Your task to perform on an android device: Add "bose soundlink mini" to the cart on walmart, then select checkout. Image 0: 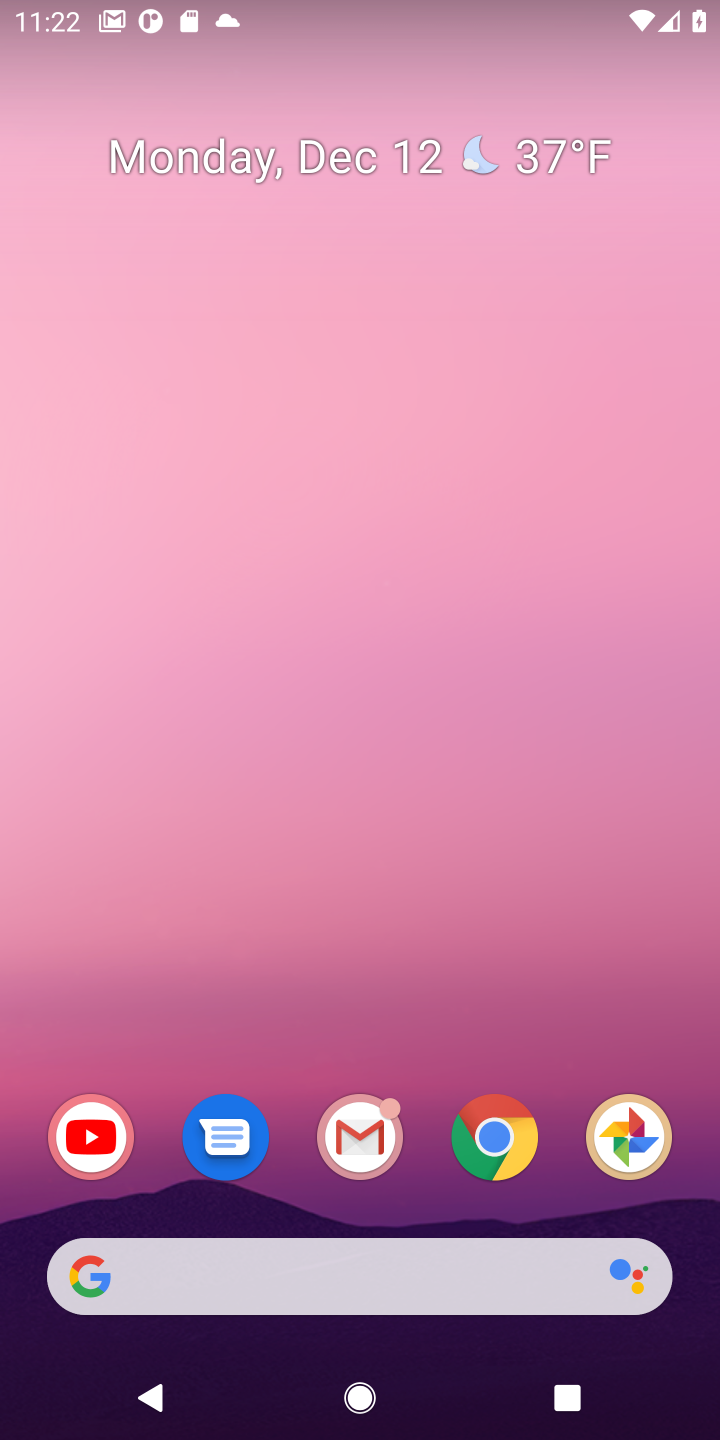
Step 0: click (446, 1281)
Your task to perform on an android device: Add "bose soundlink mini" to the cart on walmart, then select checkout. Image 1: 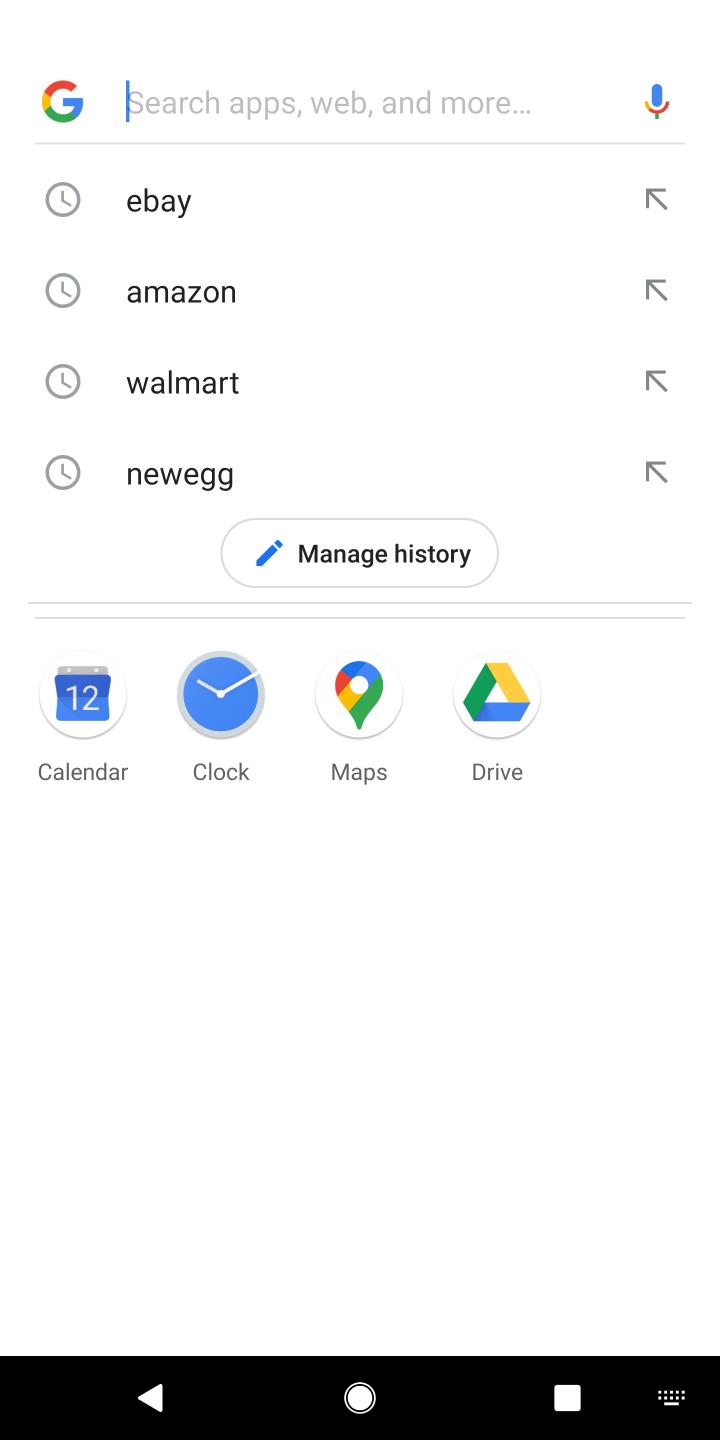
Step 1: click (231, 409)
Your task to perform on an android device: Add "bose soundlink mini" to the cart on walmart, then select checkout. Image 2: 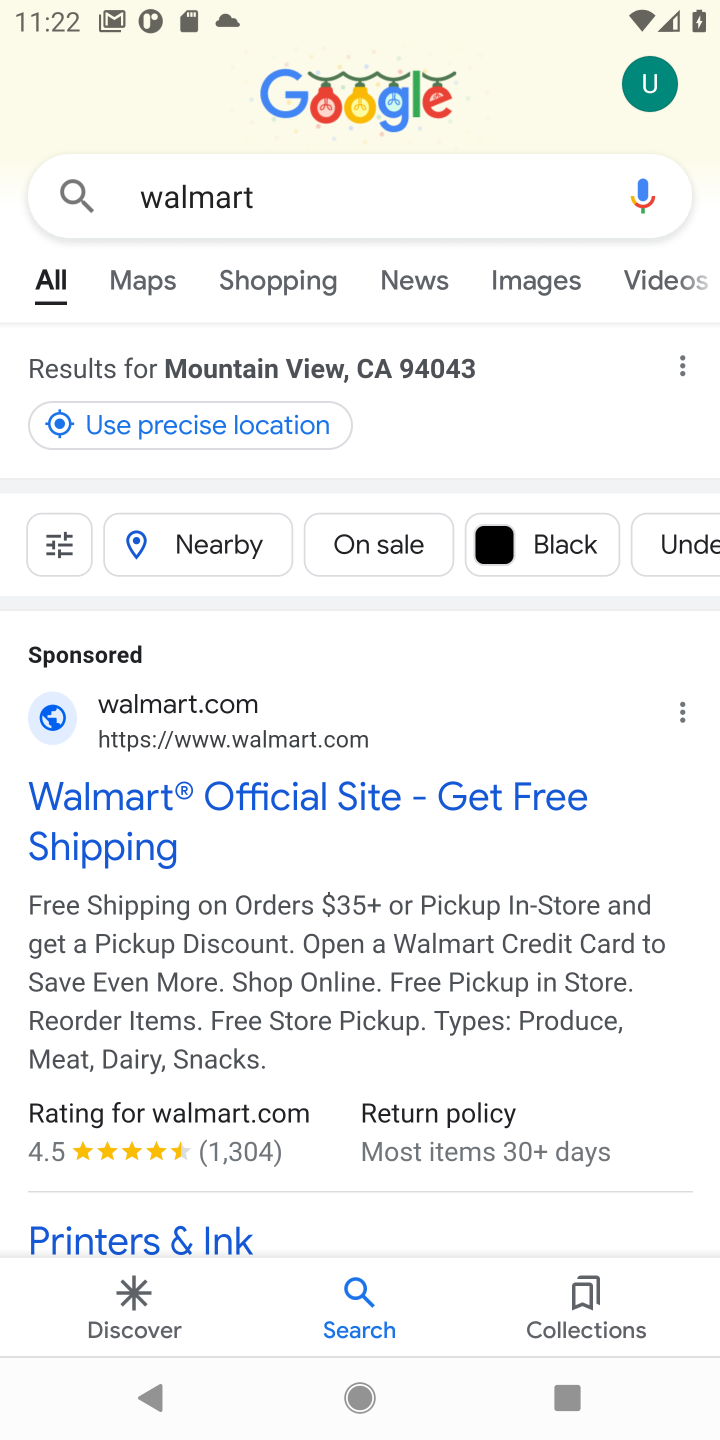
Step 2: click (211, 837)
Your task to perform on an android device: Add "bose soundlink mini" to the cart on walmart, then select checkout. Image 3: 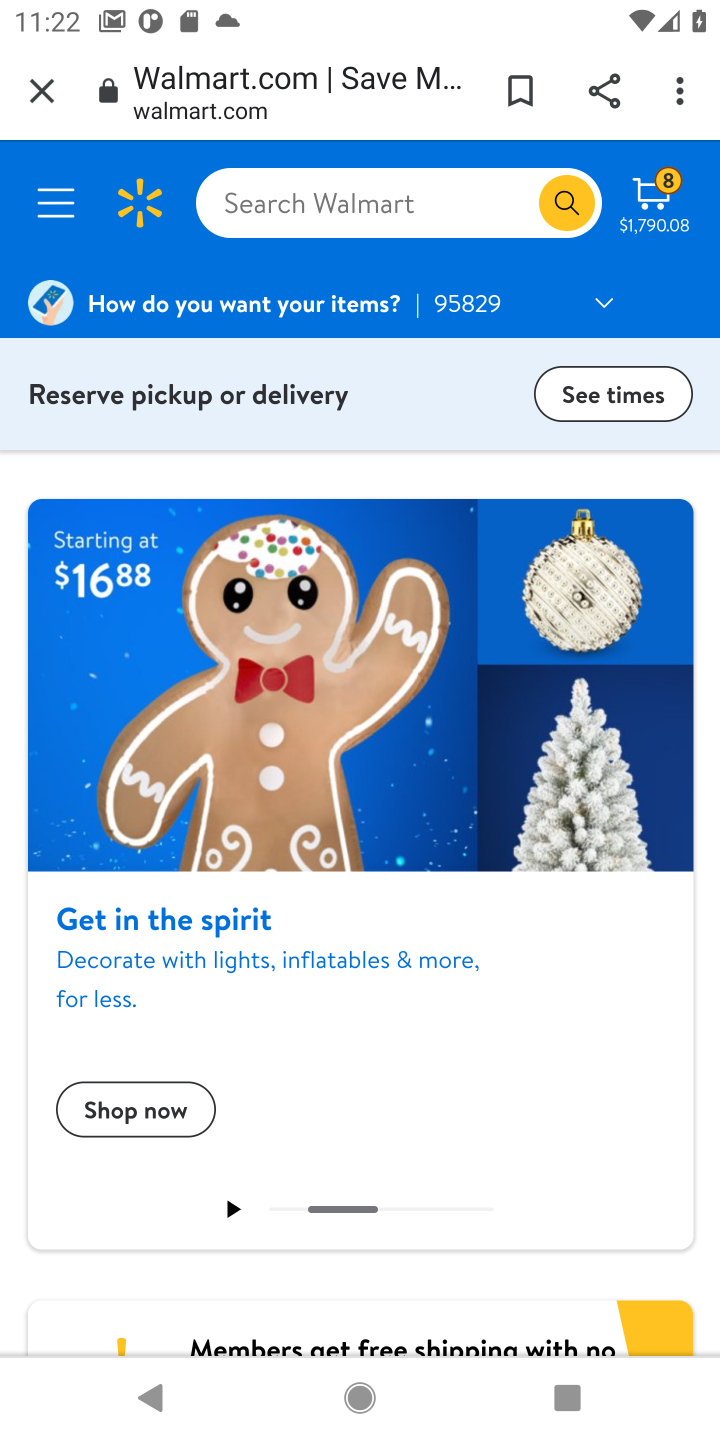
Step 3: click (393, 228)
Your task to perform on an android device: Add "bose soundlink mini" to the cart on walmart, then select checkout. Image 4: 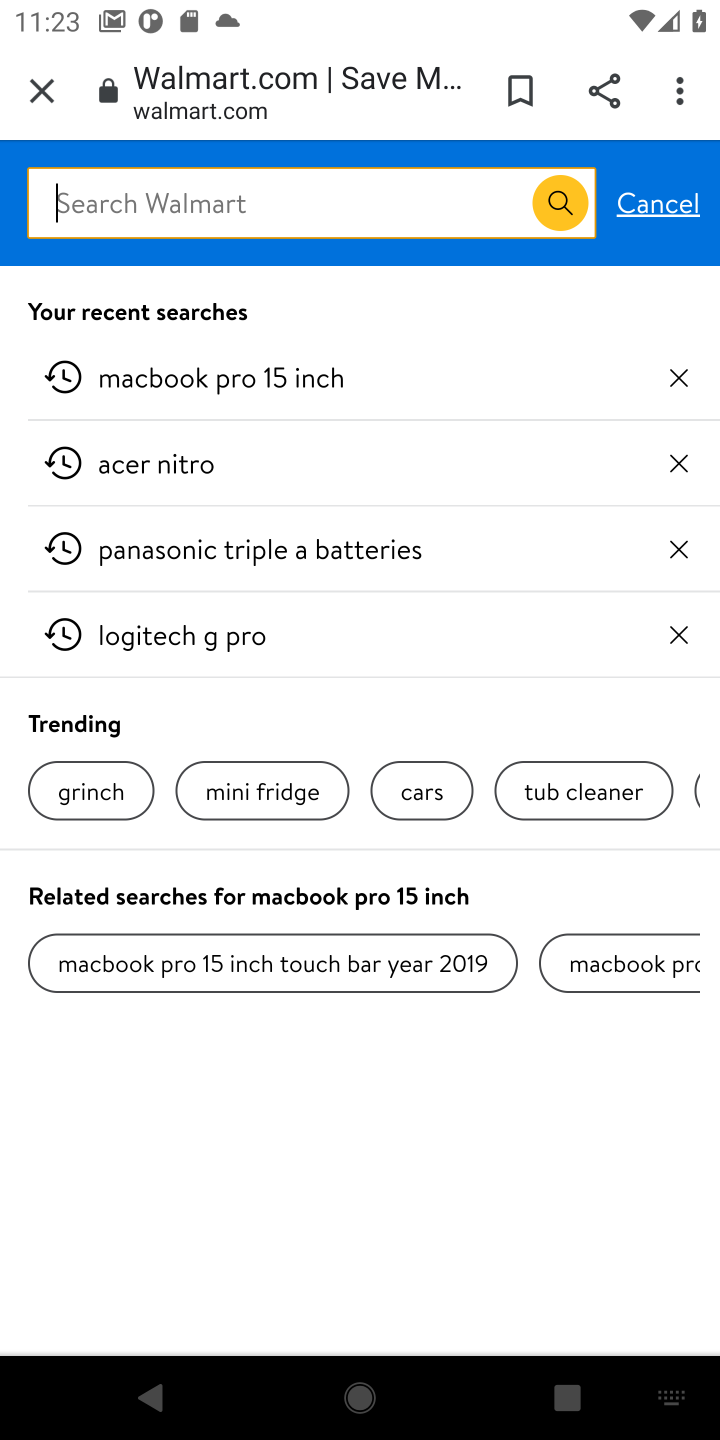
Step 4: type "bose soundlink mini"
Your task to perform on an android device: Add "bose soundlink mini" to the cart on walmart, then select checkout. Image 5: 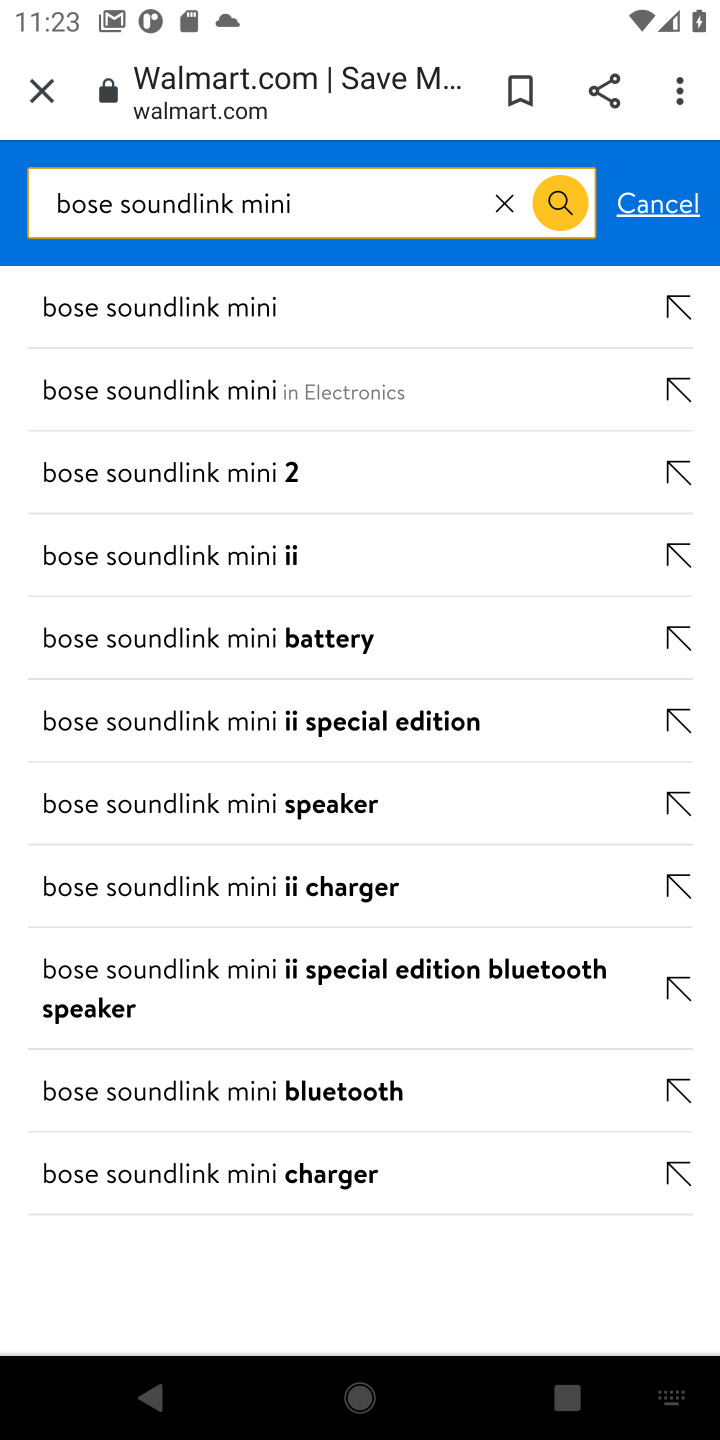
Step 5: click (343, 325)
Your task to perform on an android device: Add "bose soundlink mini" to the cart on walmart, then select checkout. Image 6: 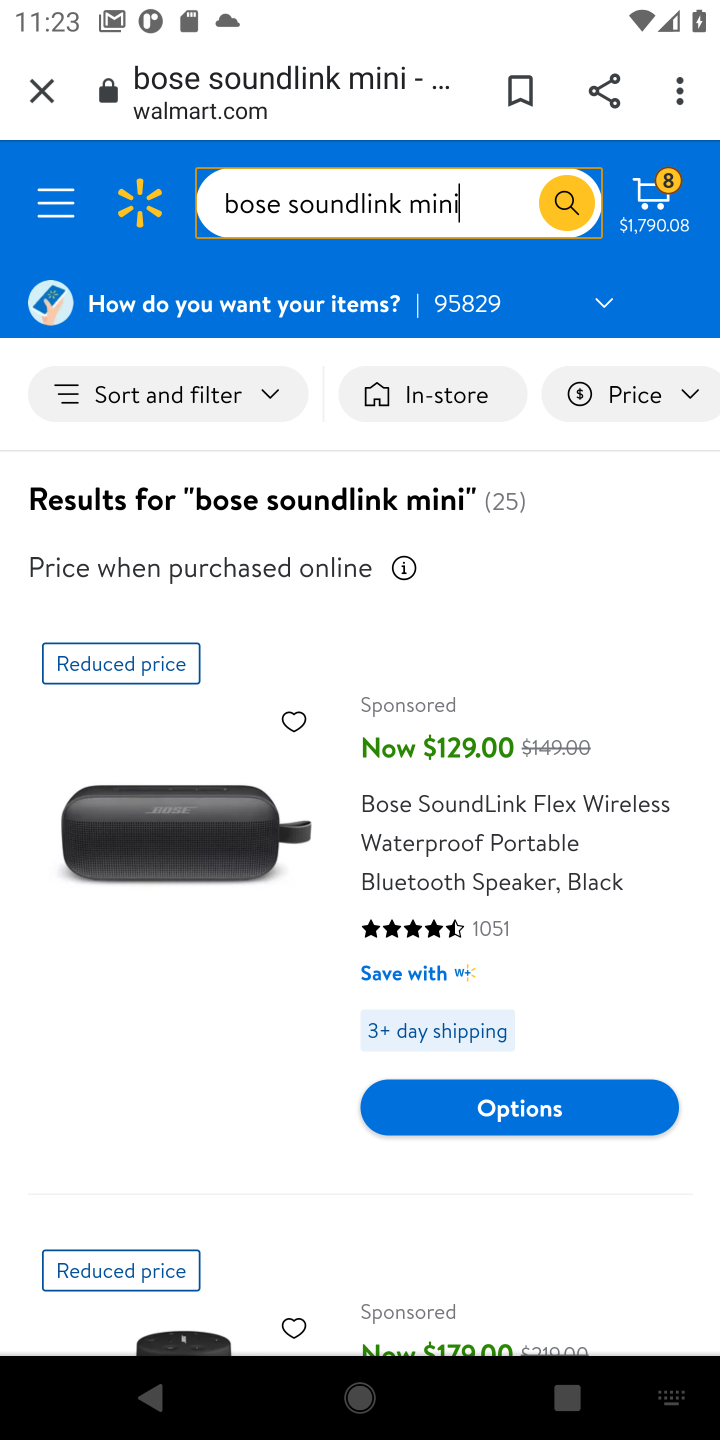
Step 6: click (424, 1112)
Your task to perform on an android device: Add "bose soundlink mini" to the cart on walmart, then select checkout. Image 7: 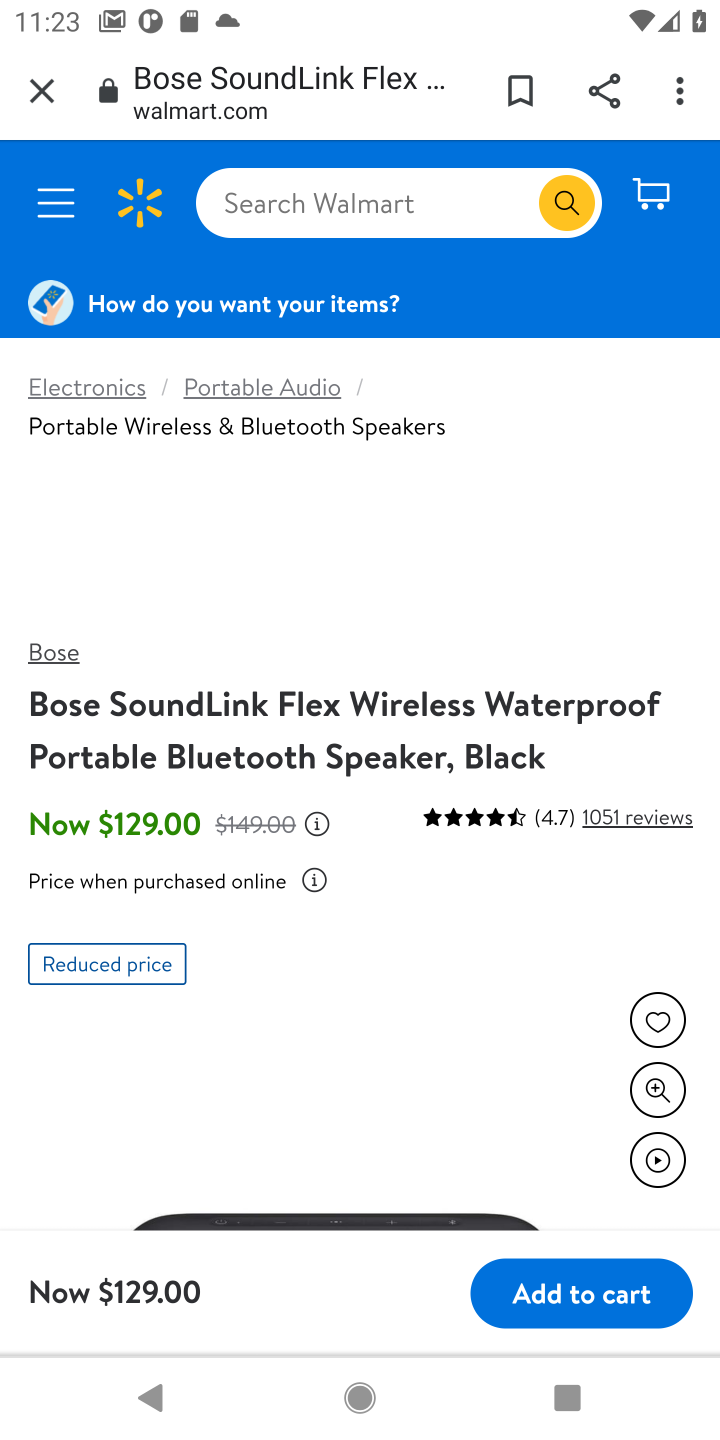
Step 7: drag from (397, 1113) to (363, 632)
Your task to perform on an android device: Add "bose soundlink mini" to the cart on walmart, then select checkout. Image 8: 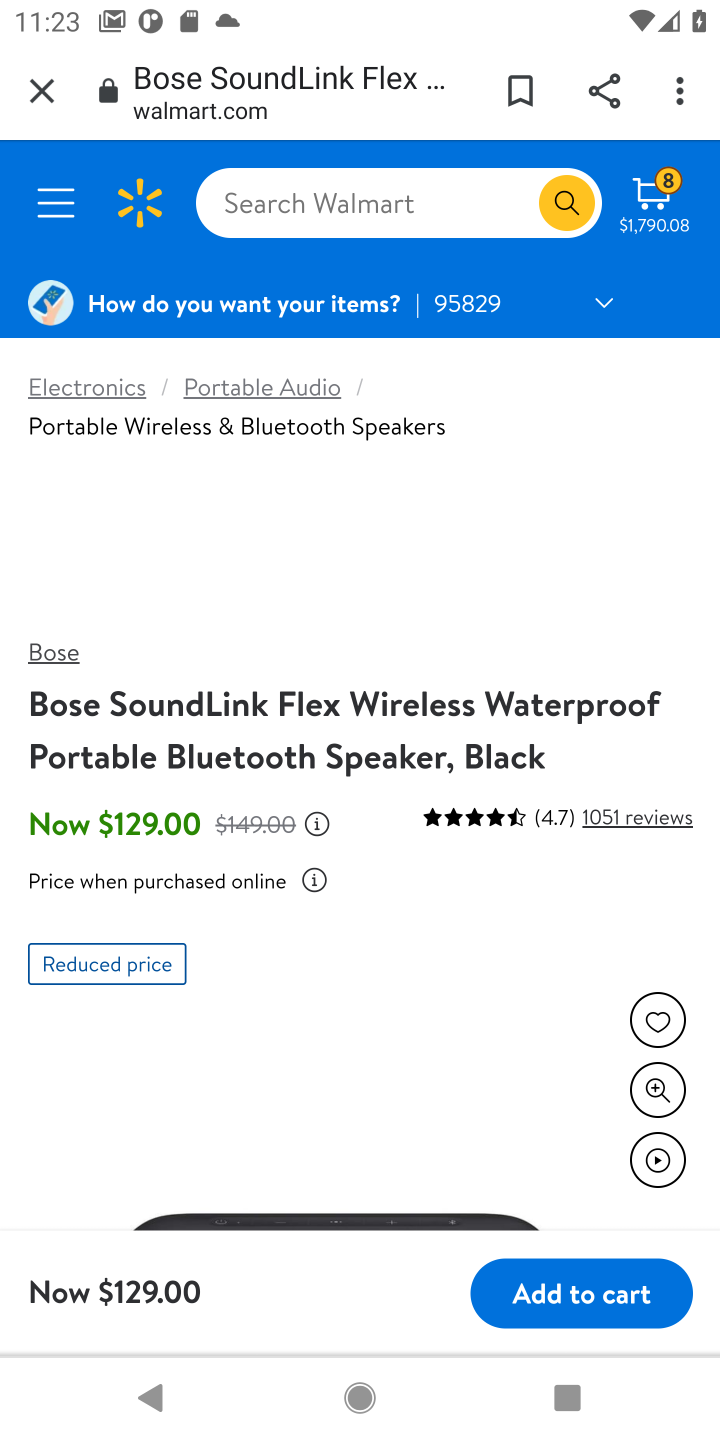
Step 8: click (548, 1276)
Your task to perform on an android device: Add "bose soundlink mini" to the cart on walmart, then select checkout. Image 9: 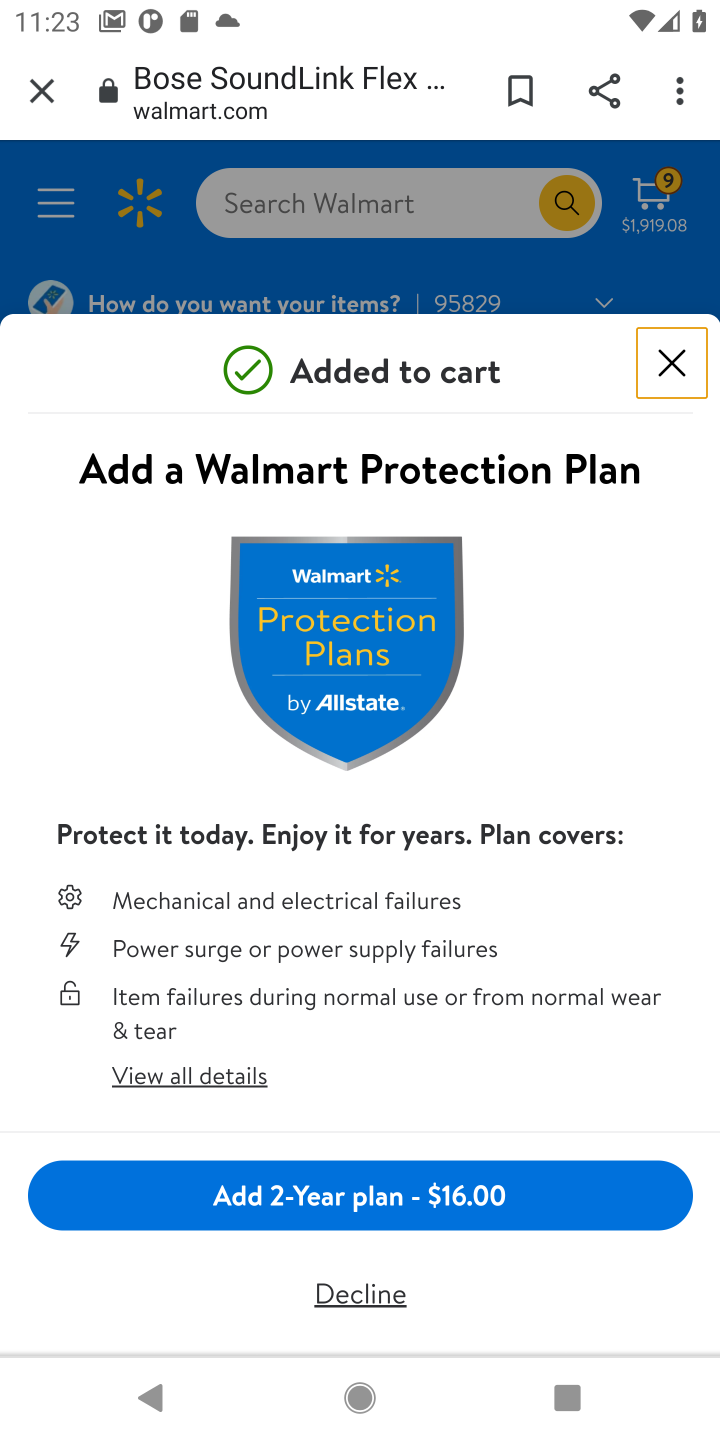
Step 9: task complete